Your task to perform on an android device: add a label to a message in the gmail app Image 0: 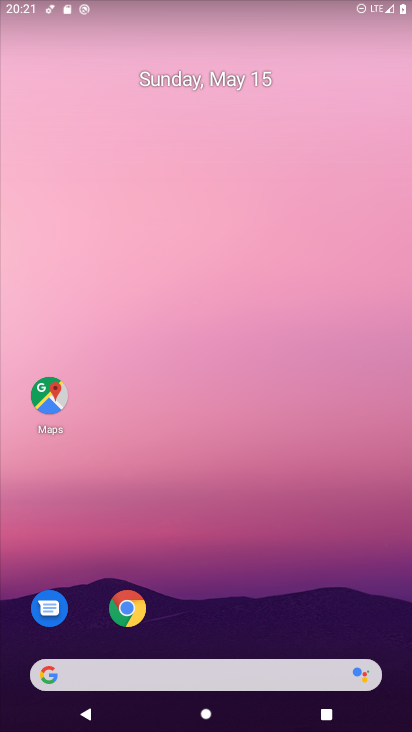
Step 0: drag from (239, 594) to (223, 85)
Your task to perform on an android device: add a label to a message in the gmail app Image 1: 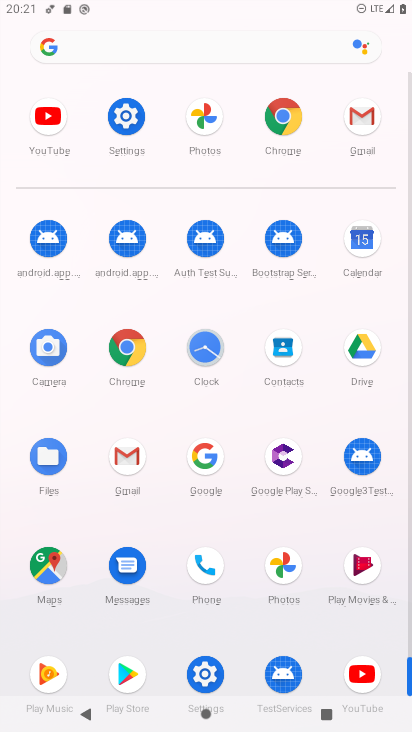
Step 1: click (130, 453)
Your task to perform on an android device: add a label to a message in the gmail app Image 2: 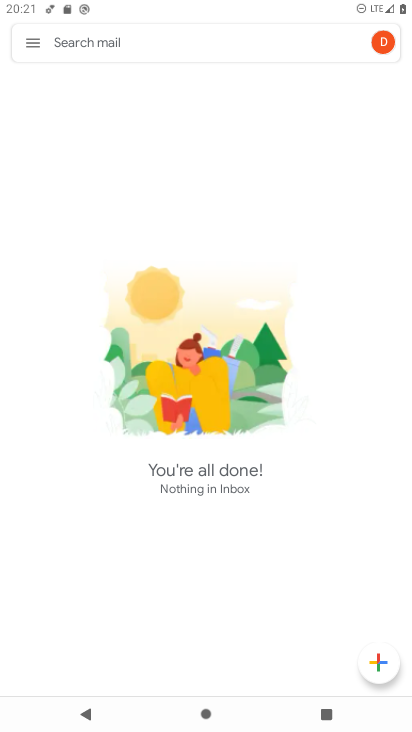
Step 2: click (21, 40)
Your task to perform on an android device: add a label to a message in the gmail app Image 3: 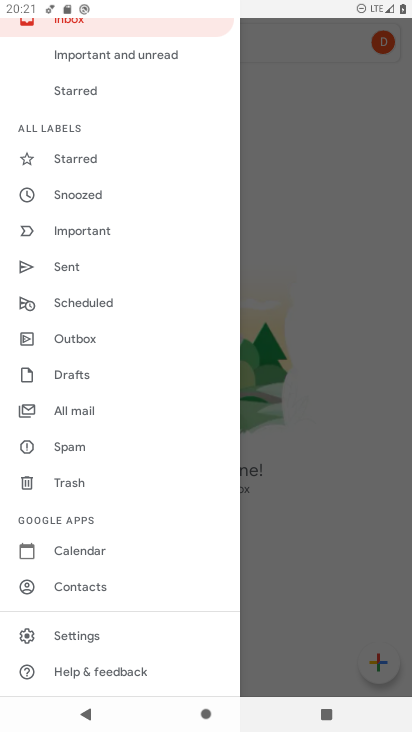
Step 3: click (64, 404)
Your task to perform on an android device: add a label to a message in the gmail app Image 4: 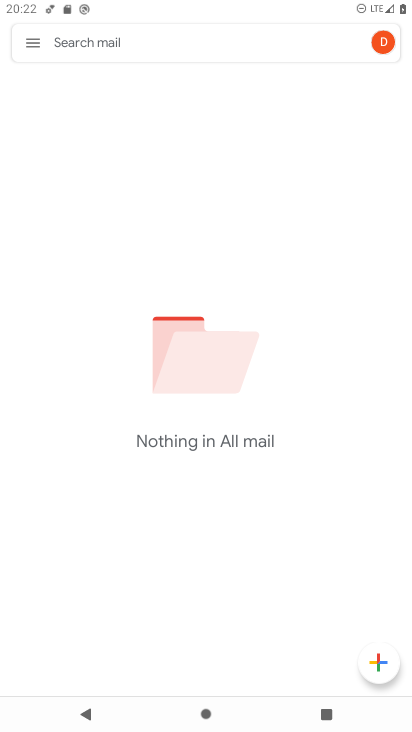
Step 4: task complete